Your task to perform on an android device: Go to Google Image 0: 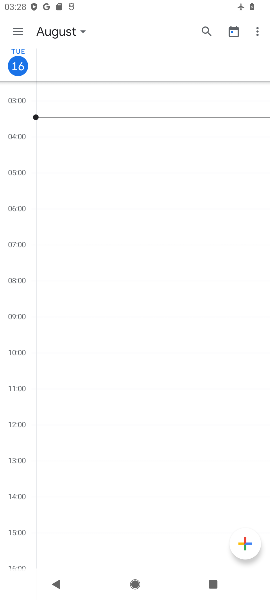
Step 0: press home button
Your task to perform on an android device: Go to Google Image 1: 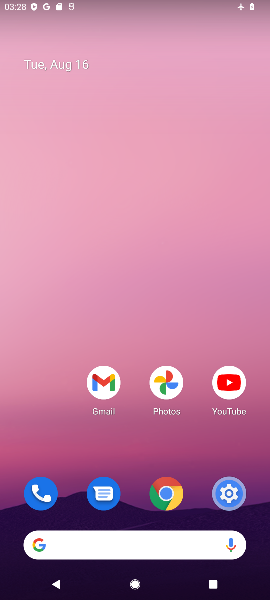
Step 1: drag from (63, 418) to (73, 113)
Your task to perform on an android device: Go to Google Image 2: 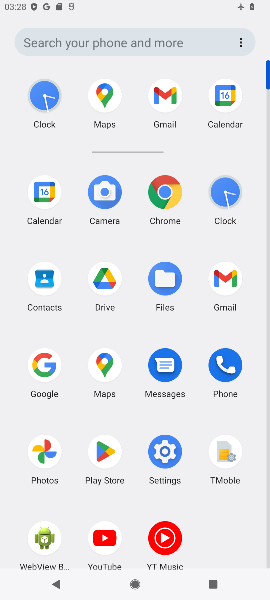
Step 2: click (41, 358)
Your task to perform on an android device: Go to Google Image 3: 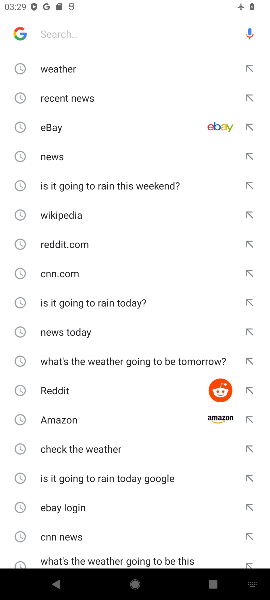
Step 3: task complete